Your task to perform on an android device: change timer sound Image 0: 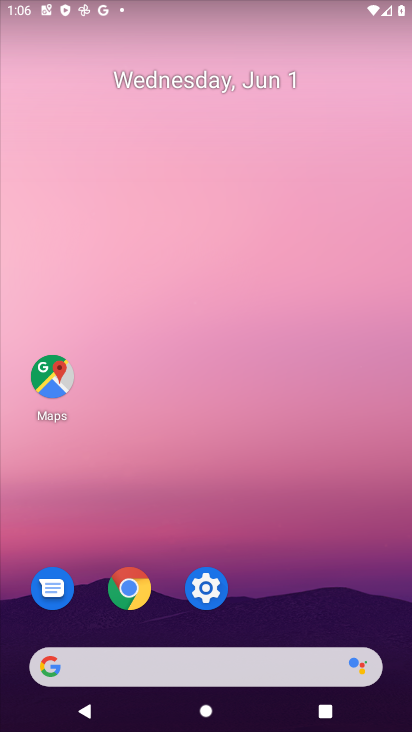
Step 0: drag from (248, 688) to (234, 87)
Your task to perform on an android device: change timer sound Image 1: 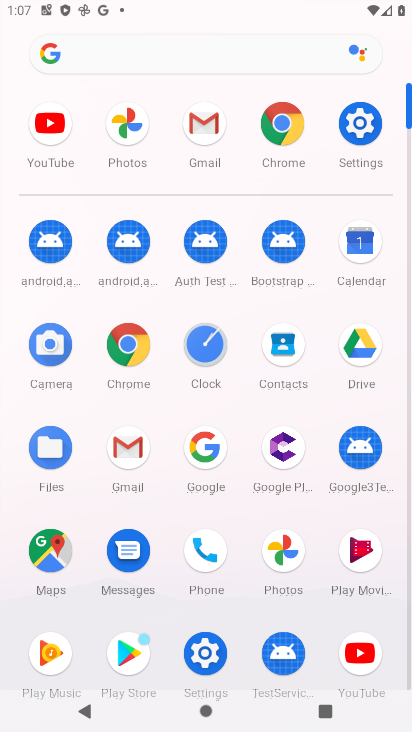
Step 1: click (213, 334)
Your task to perform on an android device: change timer sound Image 2: 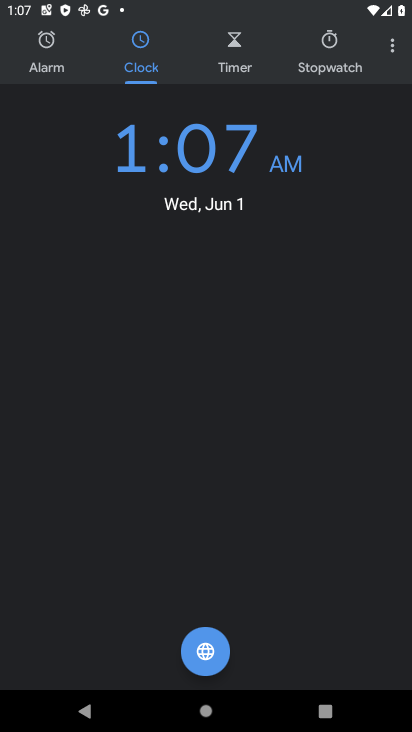
Step 2: click (384, 51)
Your task to perform on an android device: change timer sound Image 3: 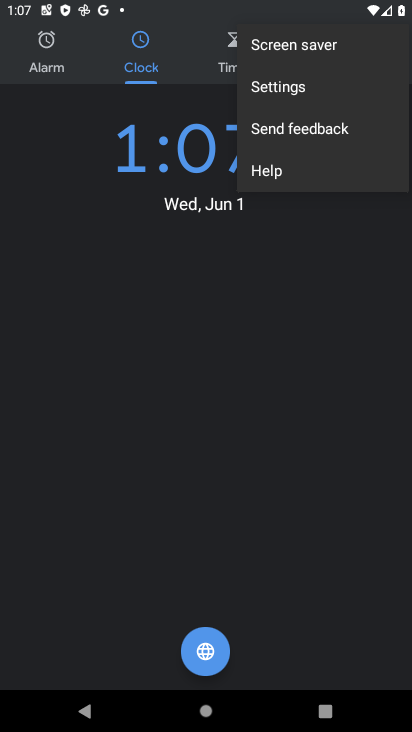
Step 3: click (278, 91)
Your task to perform on an android device: change timer sound Image 4: 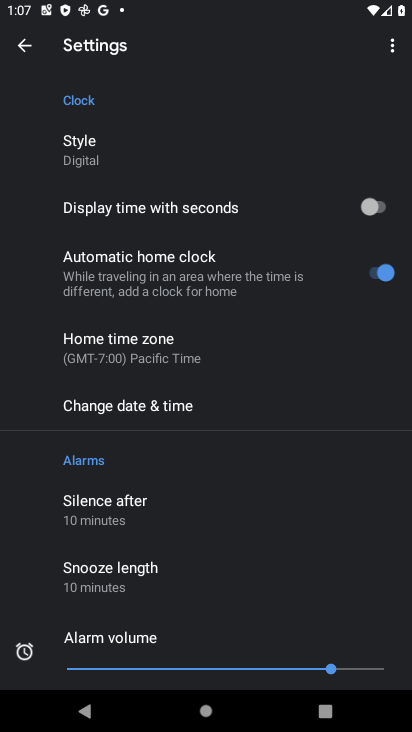
Step 4: drag from (134, 577) to (231, 154)
Your task to perform on an android device: change timer sound Image 5: 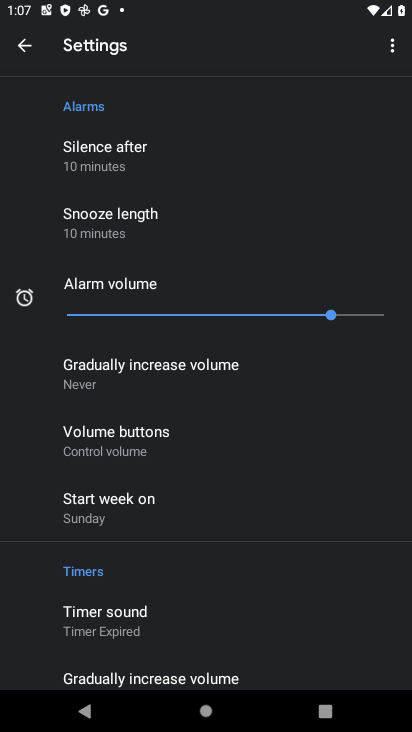
Step 5: click (103, 614)
Your task to perform on an android device: change timer sound Image 6: 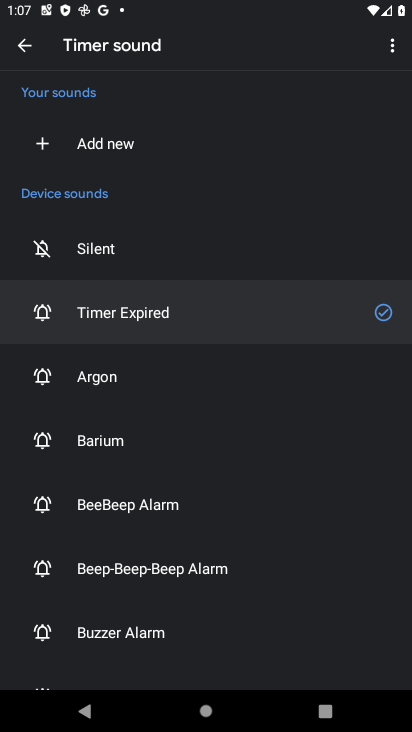
Step 6: click (93, 396)
Your task to perform on an android device: change timer sound Image 7: 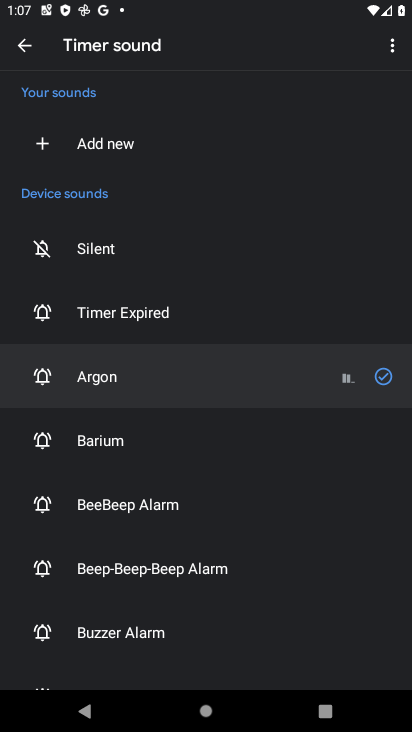
Step 7: task complete